Your task to perform on an android device: What is the recent news? Image 0: 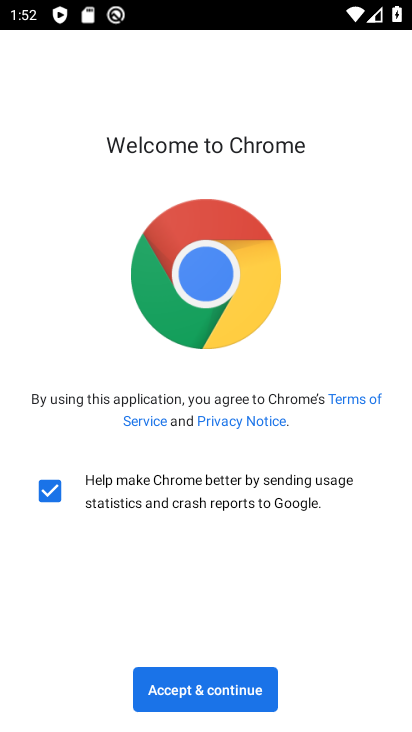
Step 0: press home button
Your task to perform on an android device: What is the recent news? Image 1: 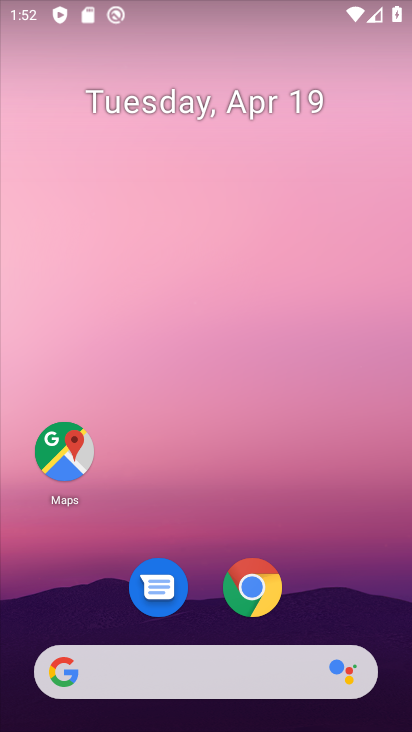
Step 1: drag from (206, 624) to (184, 217)
Your task to perform on an android device: What is the recent news? Image 2: 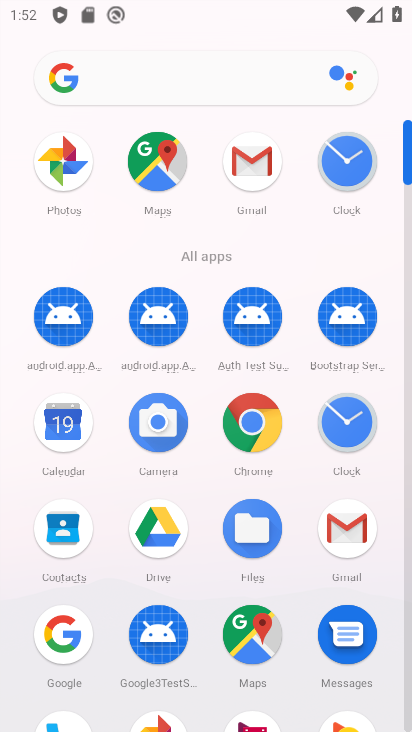
Step 2: click (68, 634)
Your task to perform on an android device: What is the recent news? Image 3: 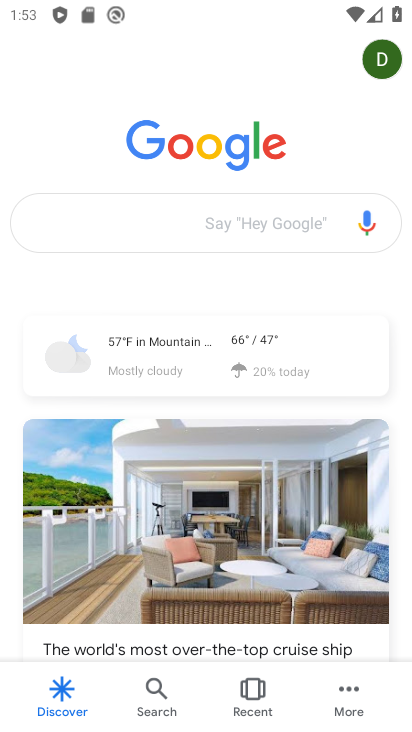
Step 3: task complete